Your task to perform on an android device: delete browsing data in the chrome app Image 0: 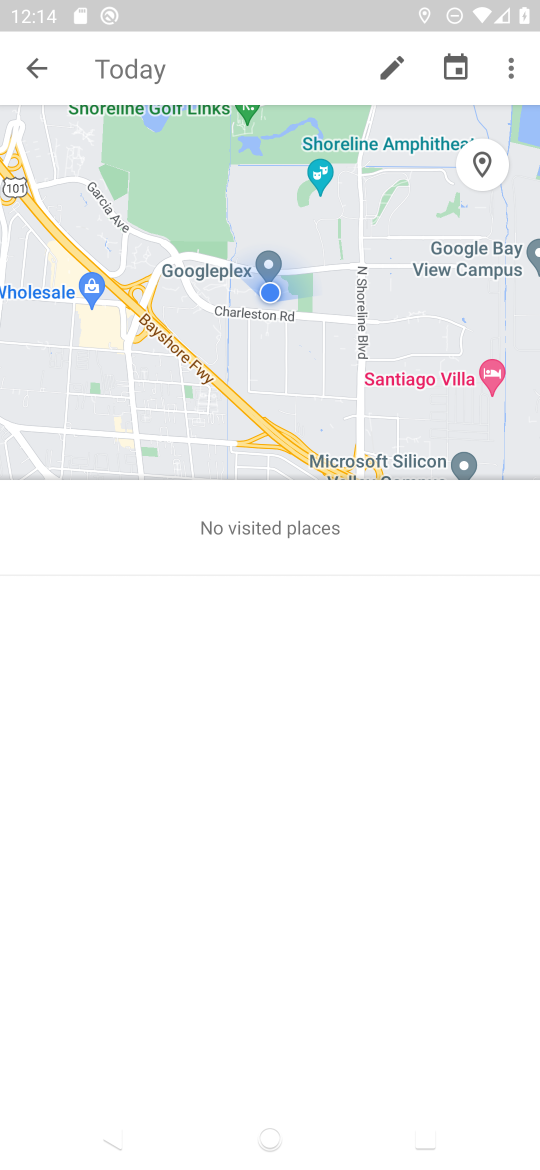
Step 0: press home button
Your task to perform on an android device: delete browsing data in the chrome app Image 1: 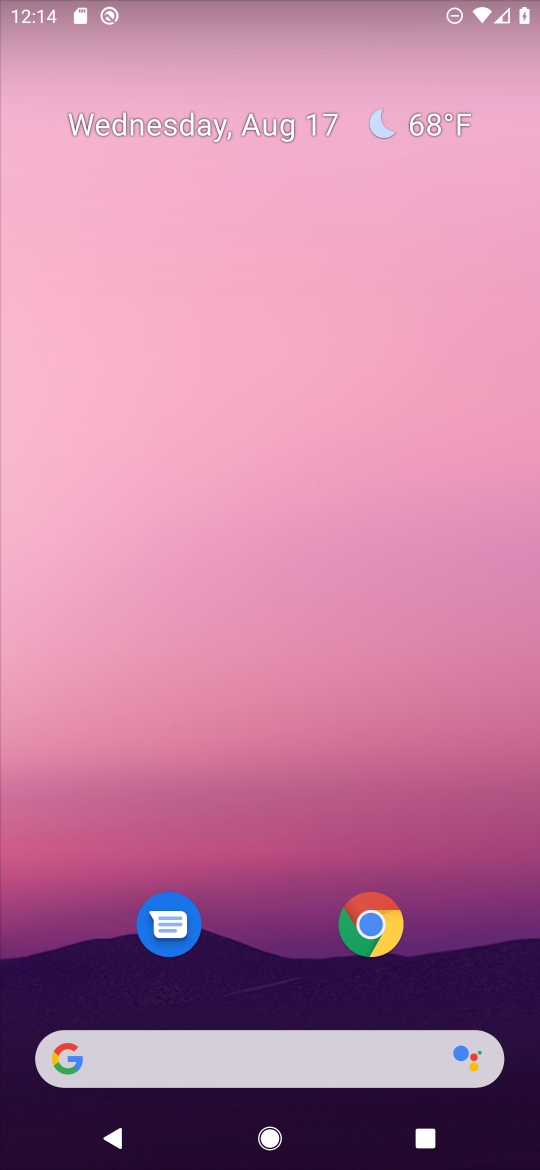
Step 1: click (363, 937)
Your task to perform on an android device: delete browsing data in the chrome app Image 2: 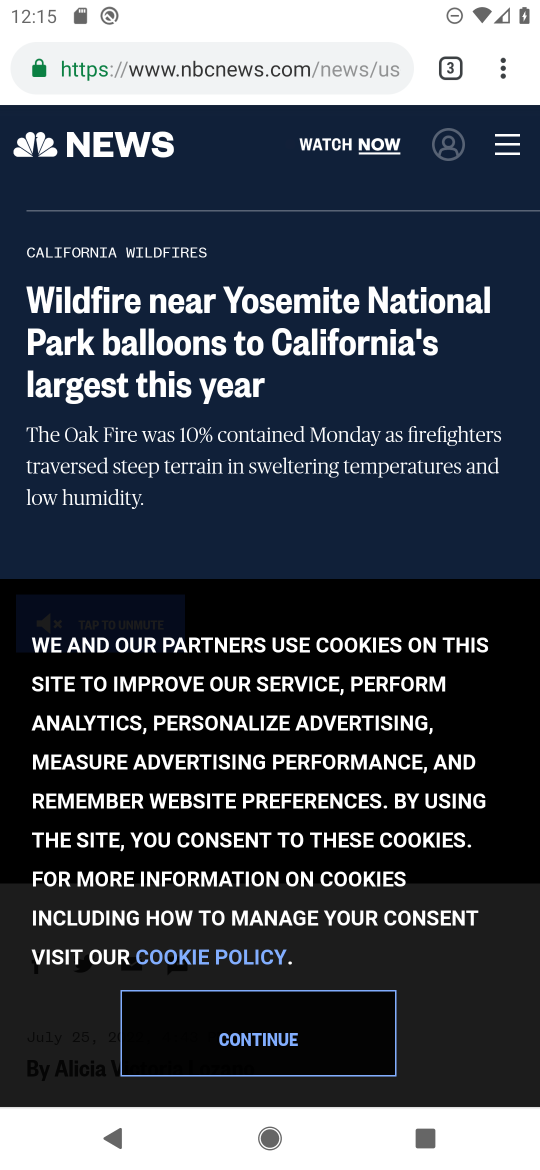
Step 2: click (514, 64)
Your task to perform on an android device: delete browsing data in the chrome app Image 3: 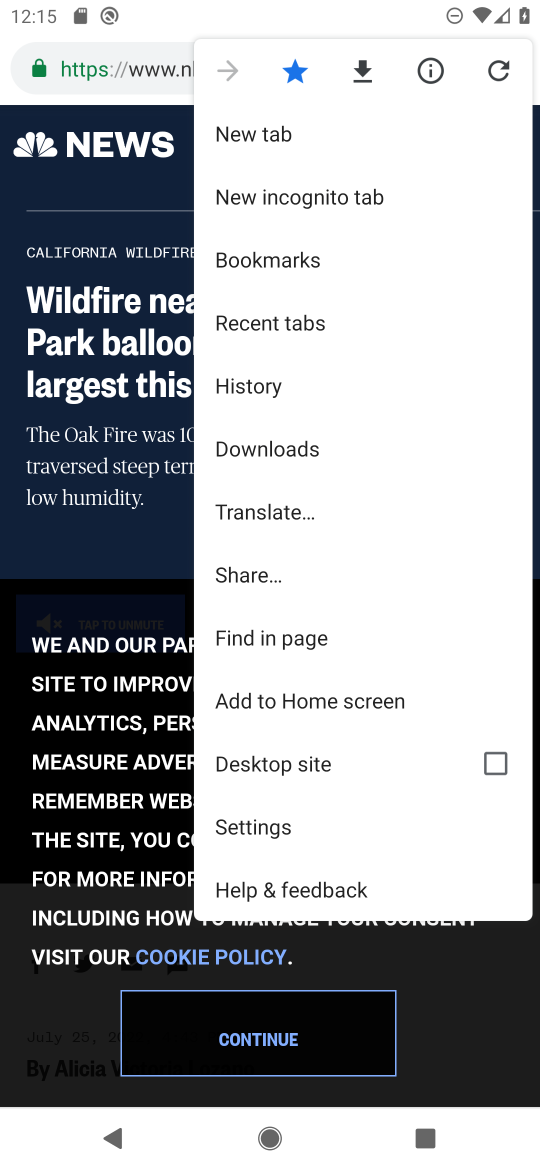
Step 3: click (302, 822)
Your task to perform on an android device: delete browsing data in the chrome app Image 4: 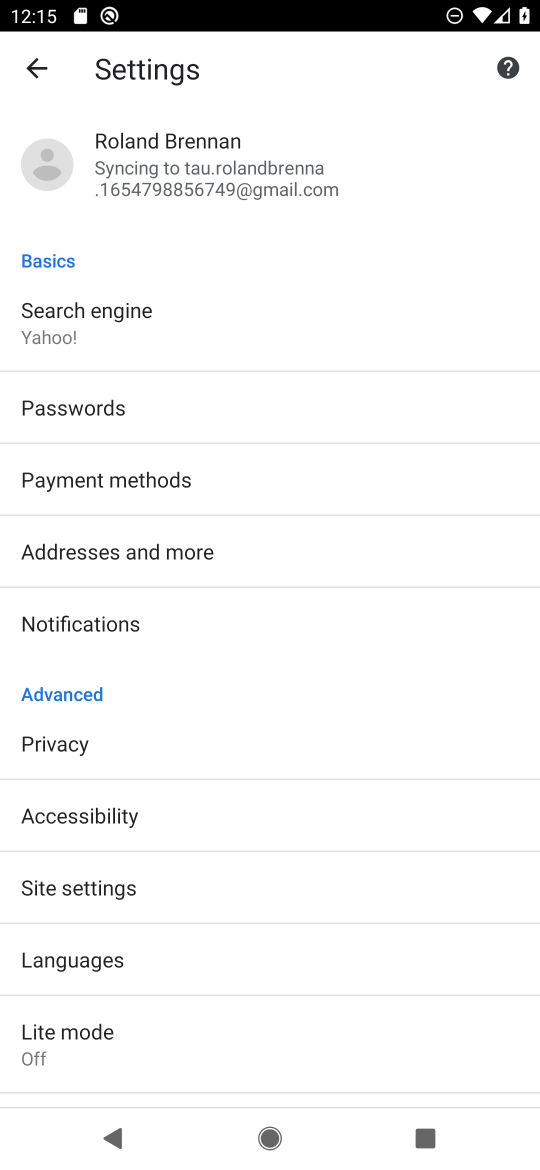
Step 4: click (42, 70)
Your task to perform on an android device: delete browsing data in the chrome app Image 5: 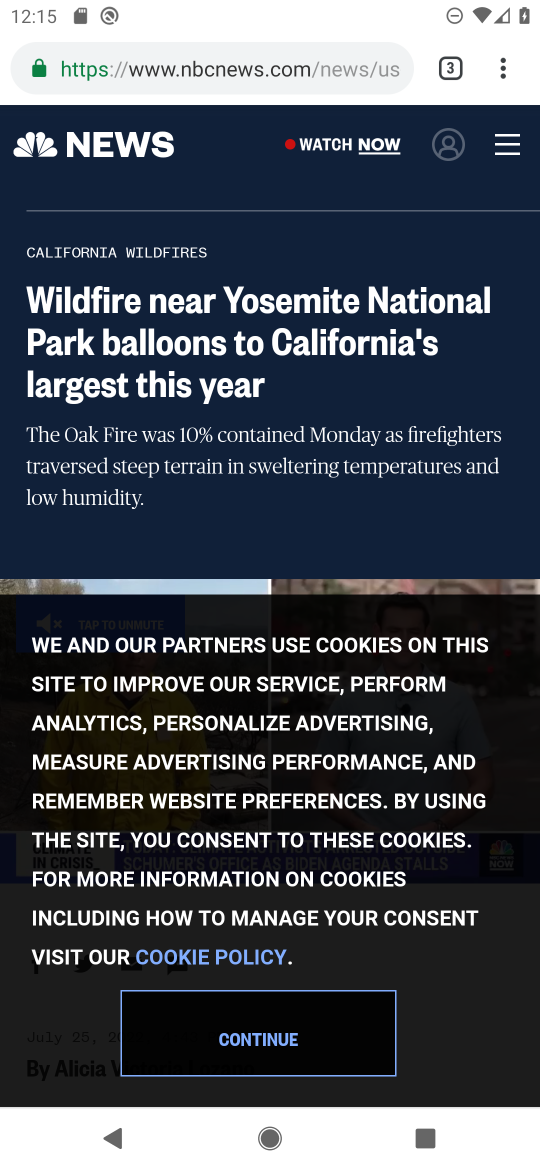
Step 5: click (516, 73)
Your task to perform on an android device: delete browsing data in the chrome app Image 6: 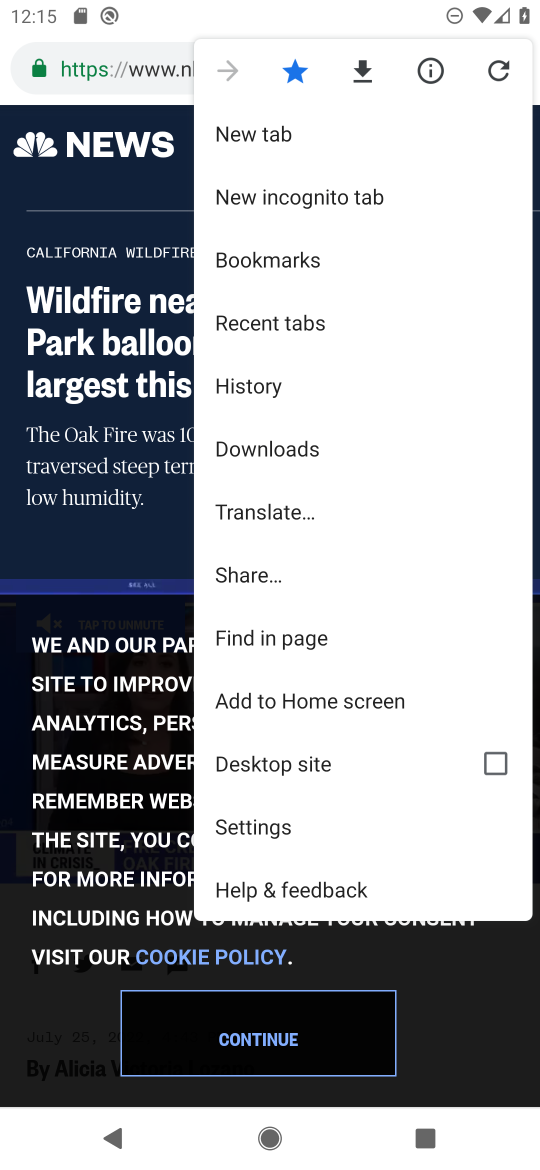
Step 6: click (290, 375)
Your task to perform on an android device: delete browsing data in the chrome app Image 7: 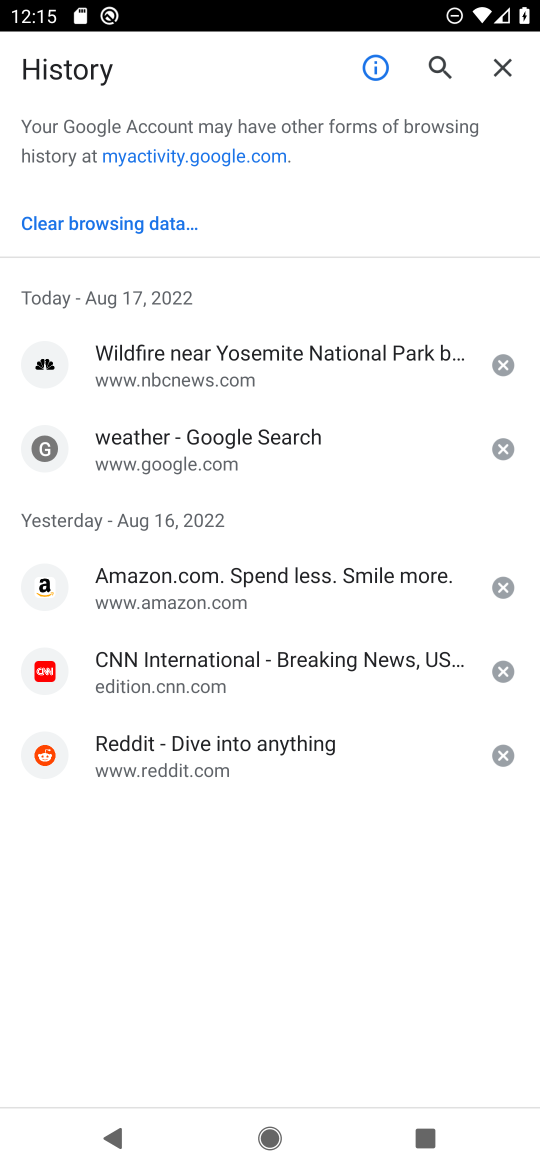
Step 7: click (156, 218)
Your task to perform on an android device: delete browsing data in the chrome app Image 8: 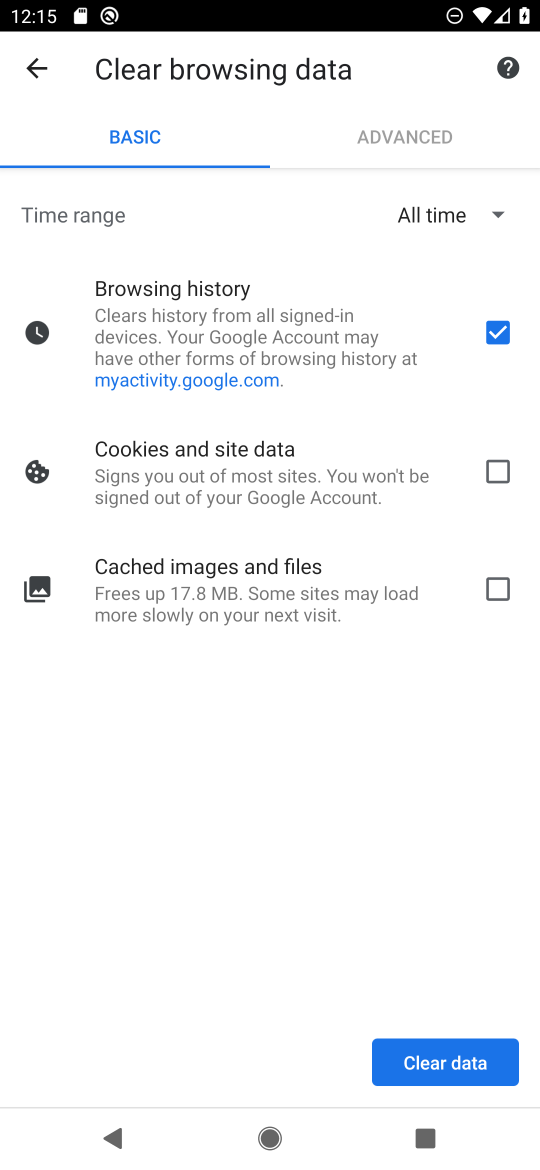
Step 8: click (491, 1043)
Your task to perform on an android device: delete browsing data in the chrome app Image 9: 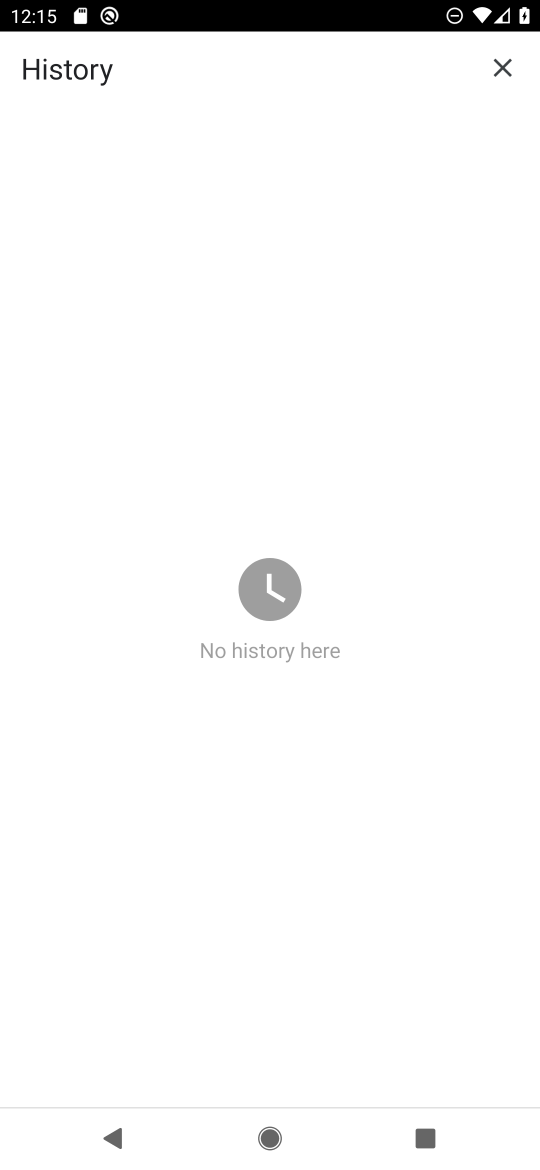
Step 9: task complete